Your task to perform on an android device: visit the assistant section in the google photos Image 0: 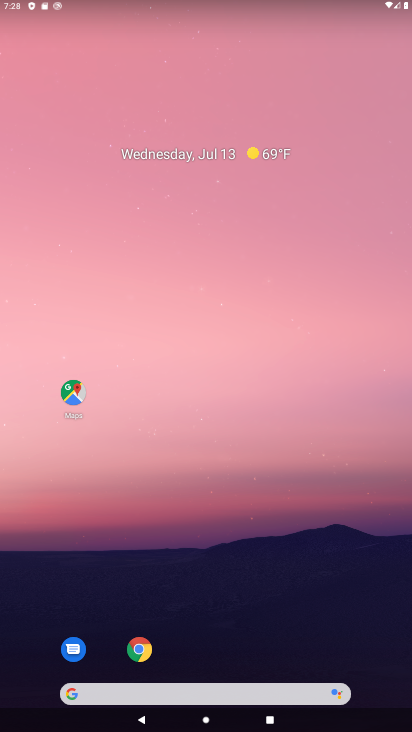
Step 0: drag from (190, 674) to (249, 353)
Your task to perform on an android device: visit the assistant section in the google photos Image 1: 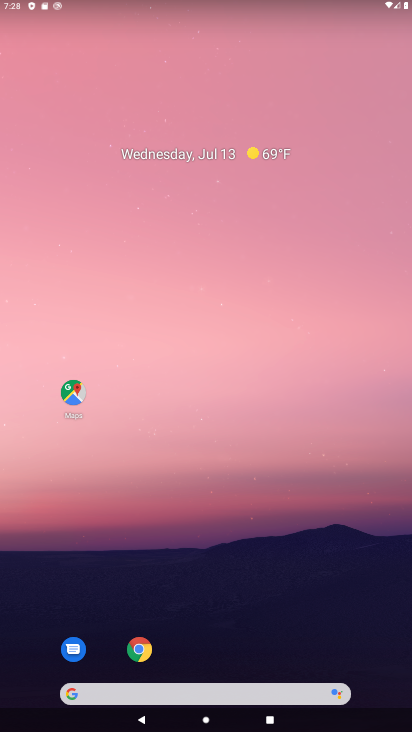
Step 1: drag from (262, 695) to (262, 358)
Your task to perform on an android device: visit the assistant section in the google photos Image 2: 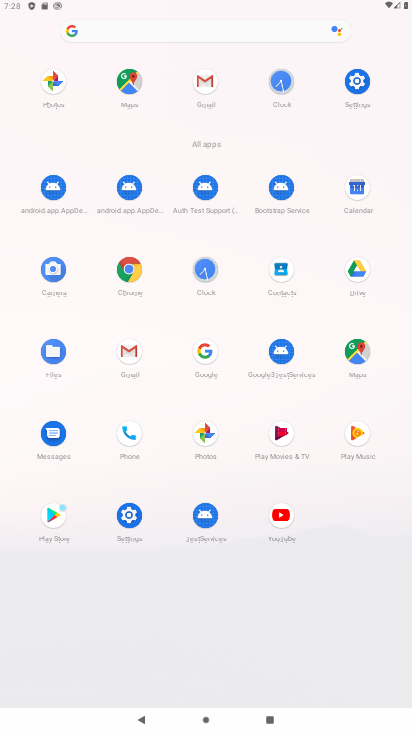
Step 2: click (205, 426)
Your task to perform on an android device: visit the assistant section in the google photos Image 3: 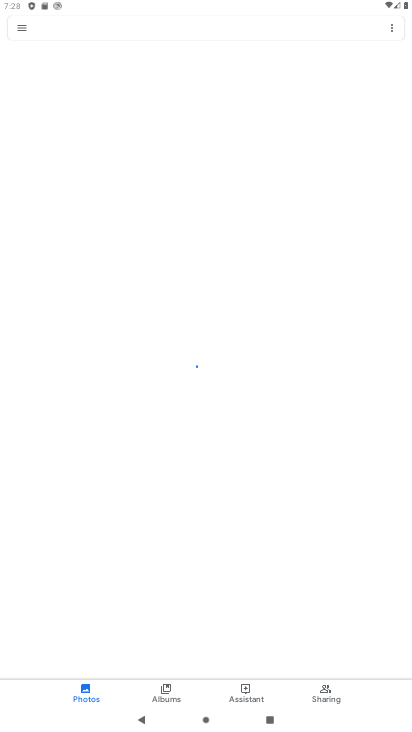
Step 3: click (243, 694)
Your task to perform on an android device: visit the assistant section in the google photos Image 4: 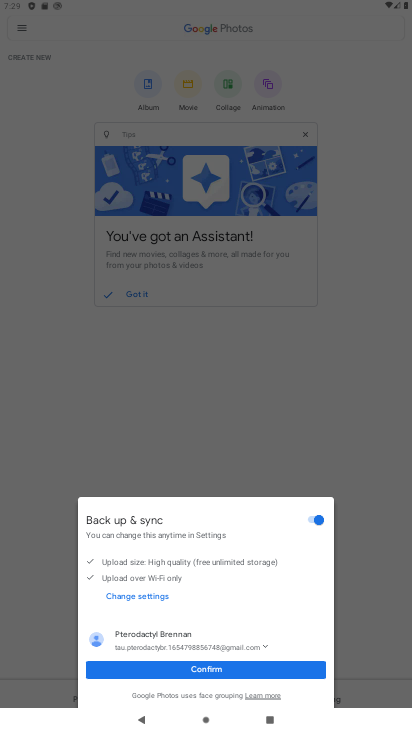
Step 4: click (208, 669)
Your task to perform on an android device: visit the assistant section in the google photos Image 5: 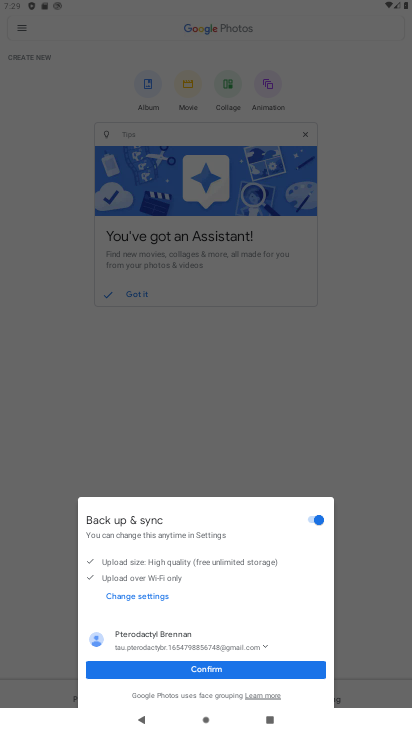
Step 5: click (208, 669)
Your task to perform on an android device: visit the assistant section in the google photos Image 6: 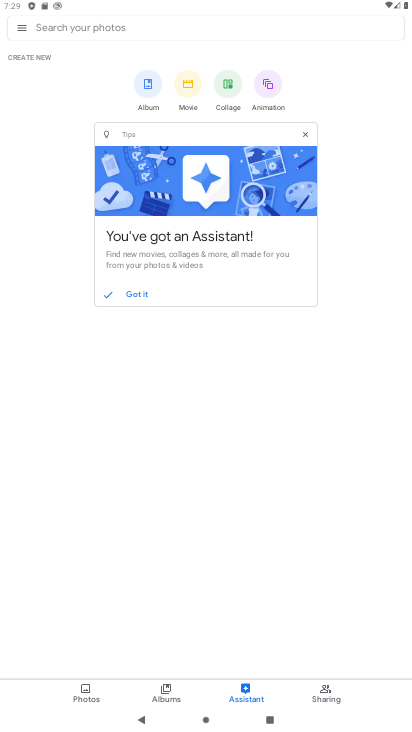
Step 6: task complete